Your task to perform on an android device: turn on showing notifications on the lock screen Image 0: 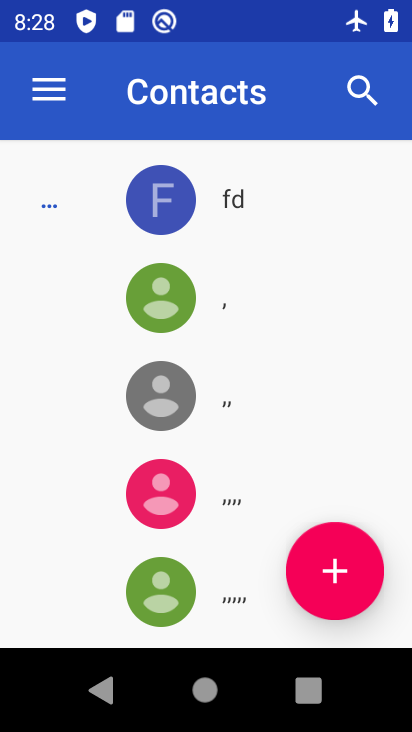
Step 0: press home button
Your task to perform on an android device: turn on showing notifications on the lock screen Image 1: 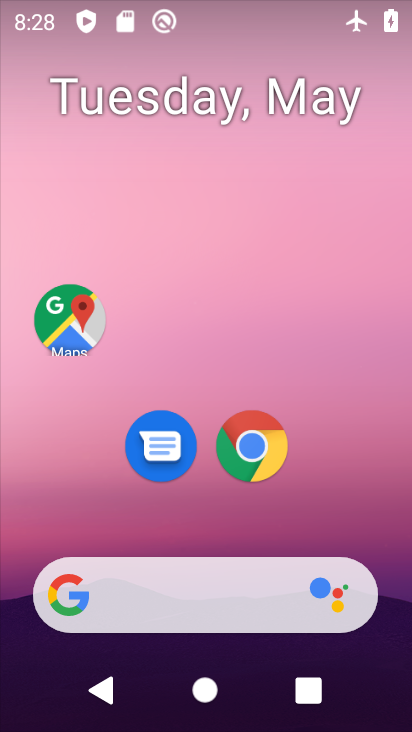
Step 1: drag from (399, 538) to (375, 187)
Your task to perform on an android device: turn on showing notifications on the lock screen Image 2: 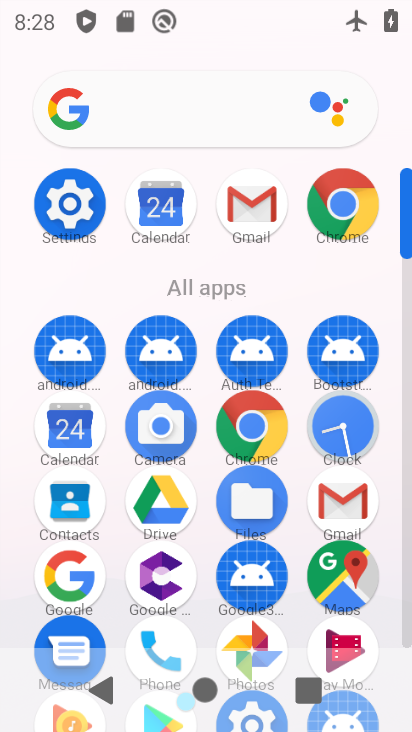
Step 2: click (83, 222)
Your task to perform on an android device: turn on showing notifications on the lock screen Image 3: 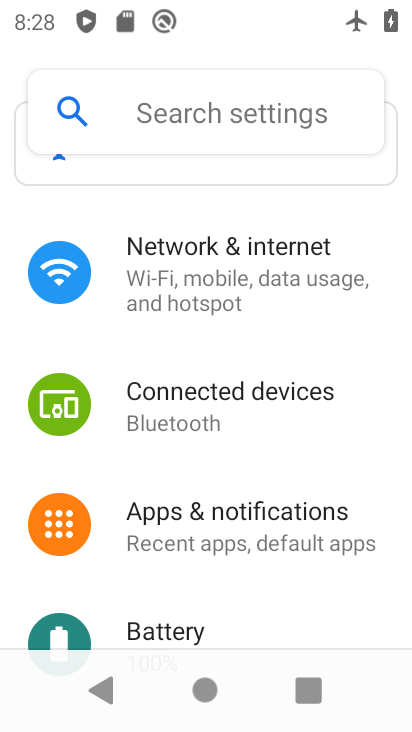
Step 3: drag from (364, 575) to (387, 448)
Your task to perform on an android device: turn on showing notifications on the lock screen Image 4: 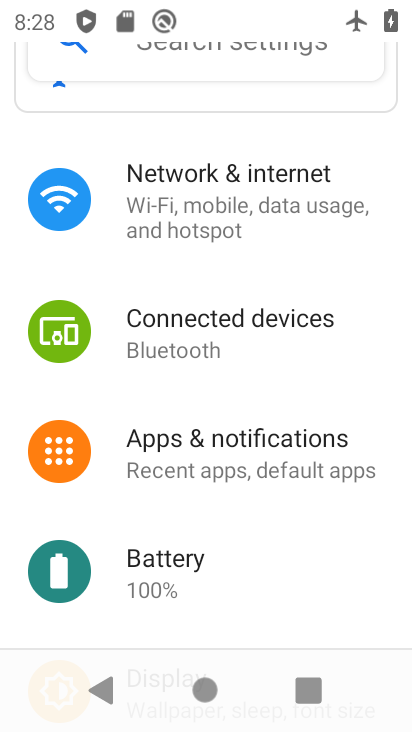
Step 4: drag from (382, 594) to (391, 465)
Your task to perform on an android device: turn on showing notifications on the lock screen Image 5: 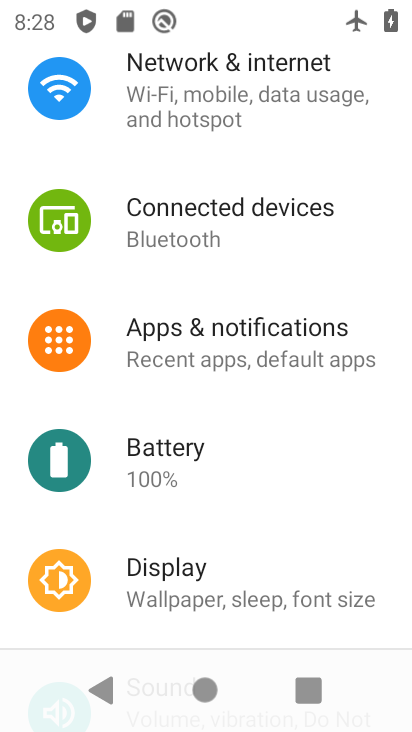
Step 5: drag from (376, 530) to (377, 397)
Your task to perform on an android device: turn on showing notifications on the lock screen Image 6: 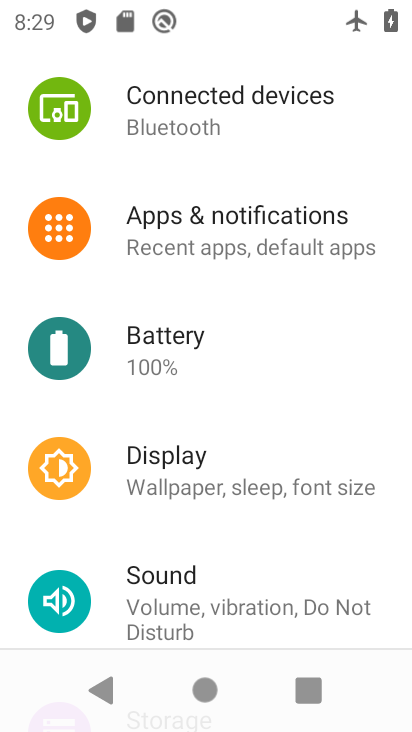
Step 6: drag from (359, 571) to (365, 430)
Your task to perform on an android device: turn on showing notifications on the lock screen Image 7: 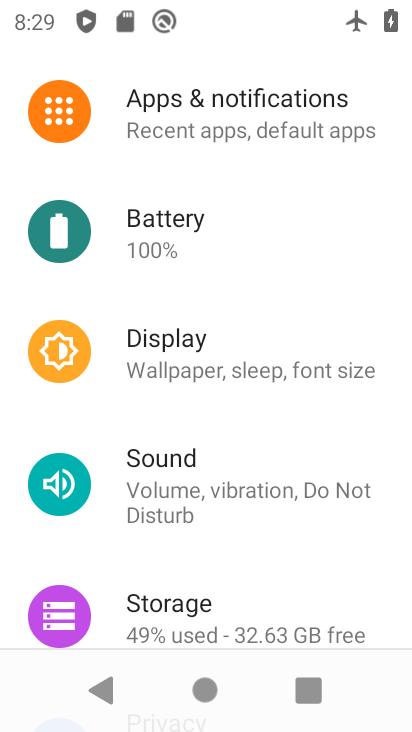
Step 7: drag from (360, 576) to (366, 466)
Your task to perform on an android device: turn on showing notifications on the lock screen Image 8: 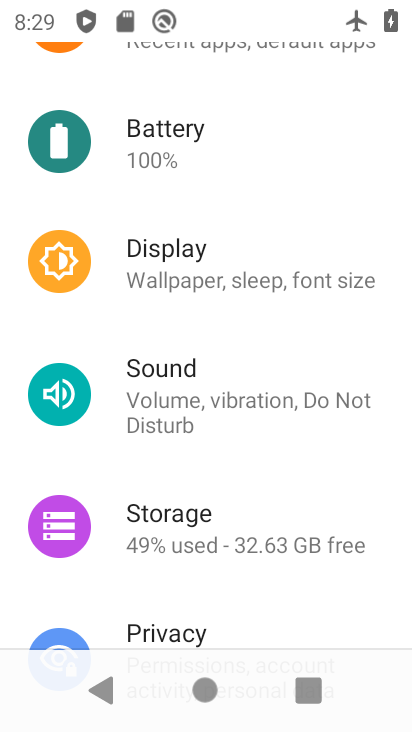
Step 8: drag from (366, 595) to (378, 497)
Your task to perform on an android device: turn on showing notifications on the lock screen Image 9: 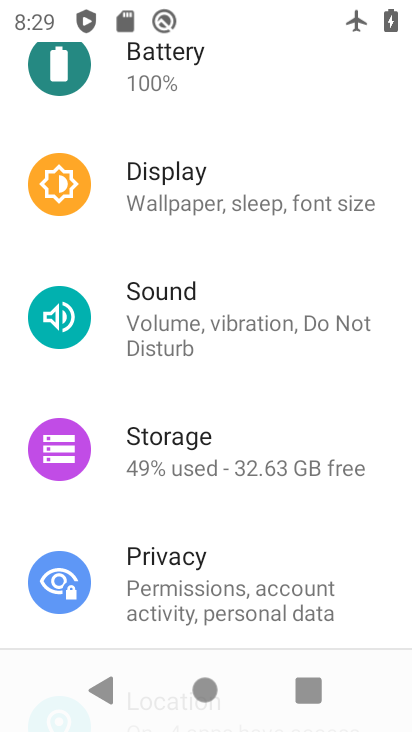
Step 9: drag from (372, 574) to (375, 478)
Your task to perform on an android device: turn on showing notifications on the lock screen Image 10: 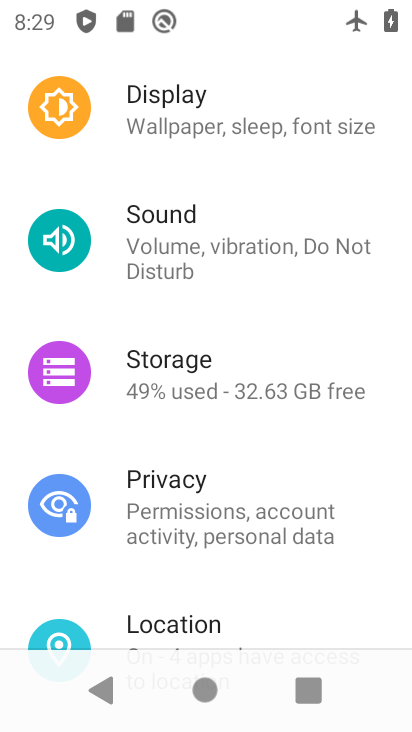
Step 10: drag from (385, 323) to (385, 437)
Your task to perform on an android device: turn on showing notifications on the lock screen Image 11: 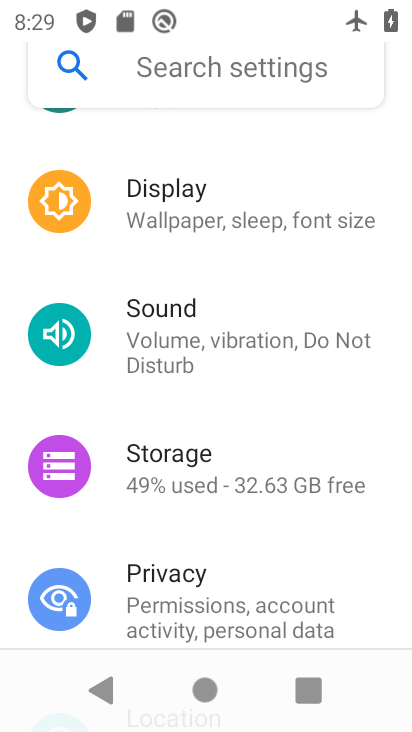
Step 11: drag from (384, 271) to (387, 375)
Your task to perform on an android device: turn on showing notifications on the lock screen Image 12: 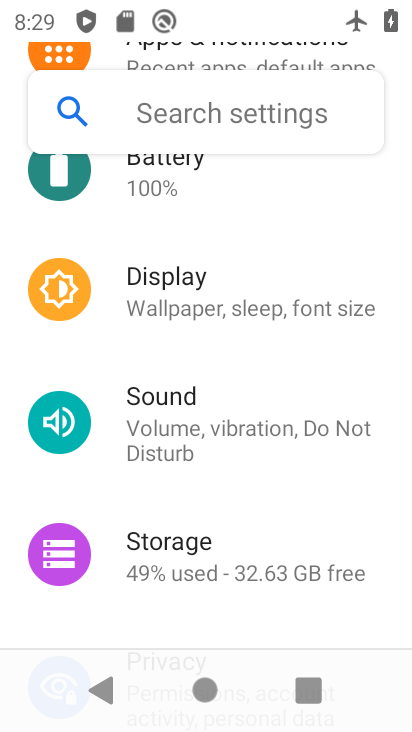
Step 12: drag from (373, 275) to (372, 367)
Your task to perform on an android device: turn on showing notifications on the lock screen Image 13: 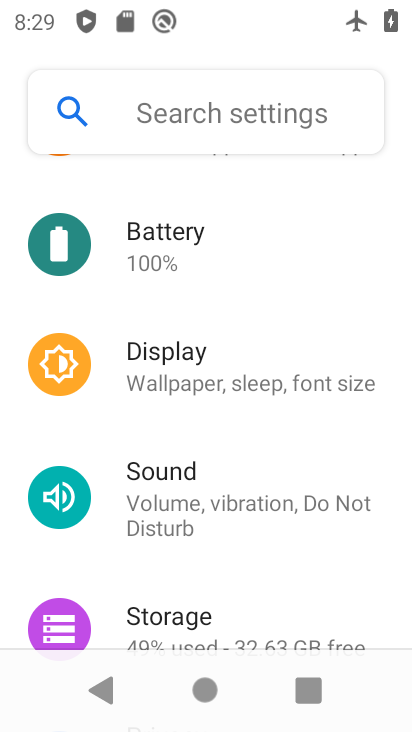
Step 13: drag from (381, 282) to (382, 371)
Your task to perform on an android device: turn on showing notifications on the lock screen Image 14: 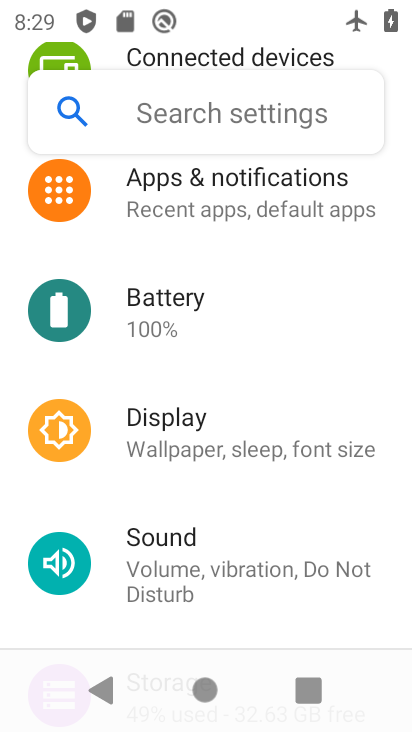
Step 14: drag from (380, 247) to (384, 367)
Your task to perform on an android device: turn on showing notifications on the lock screen Image 15: 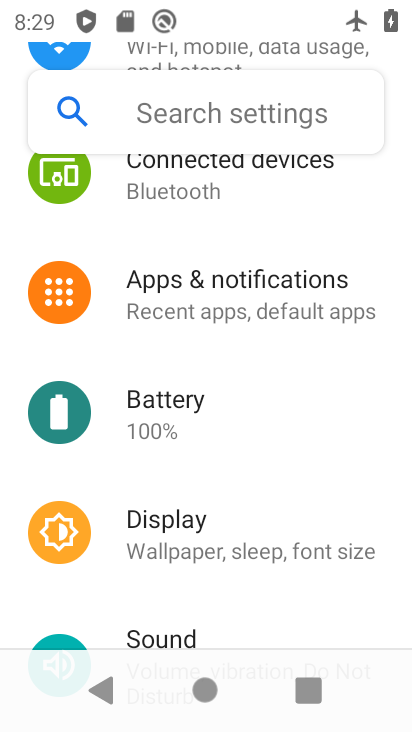
Step 15: drag from (387, 233) to (388, 351)
Your task to perform on an android device: turn on showing notifications on the lock screen Image 16: 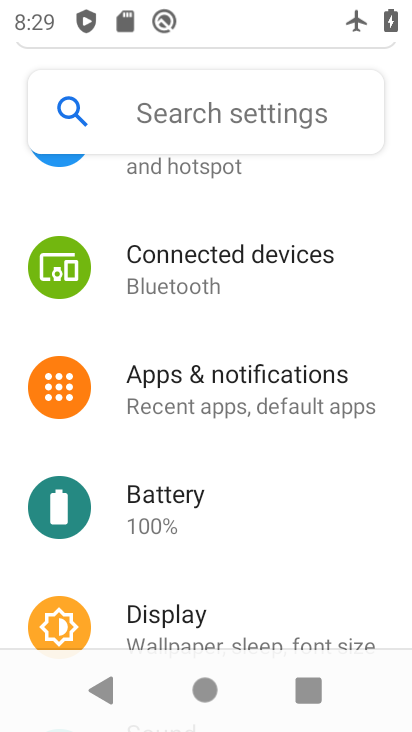
Step 16: click (275, 401)
Your task to perform on an android device: turn on showing notifications on the lock screen Image 17: 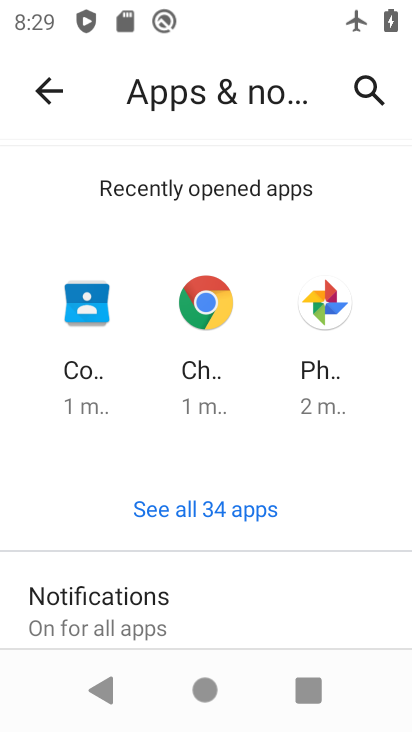
Step 17: drag from (276, 553) to (287, 455)
Your task to perform on an android device: turn on showing notifications on the lock screen Image 18: 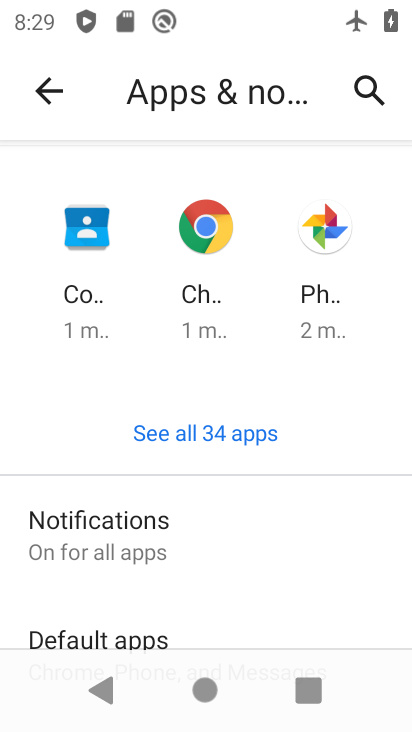
Step 18: drag from (289, 548) to (298, 433)
Your task to perform on an android device: turn on showing notifications on the lock screen Image 19: 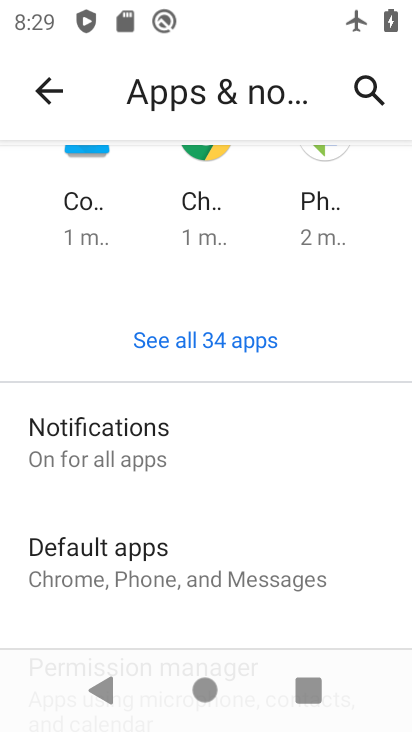
Step 19: click (141, 459)
Your task to perform on an android device: turn on showing notifications on the lock screen Image 20: 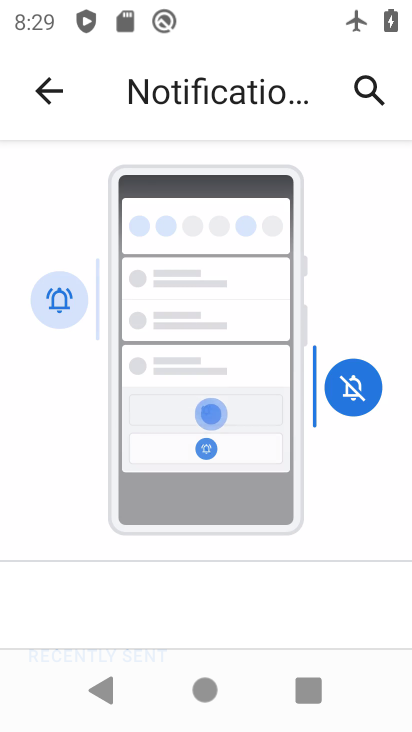
Step 20: drag from (338, 555) to (350, 426)
Your task to perform on an android device: turn on showing notifications on the lock screen Image 21: 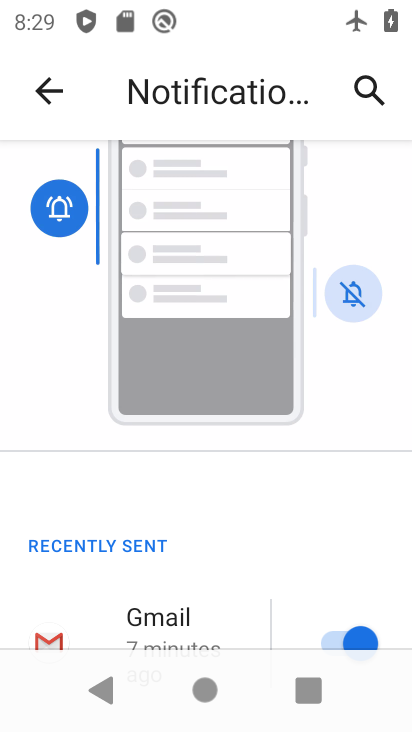
Step 21: drag from (302, 575) to (307, 385)
Your task to perform on an android device: turn on showing notifications on the lock screen Image 22: 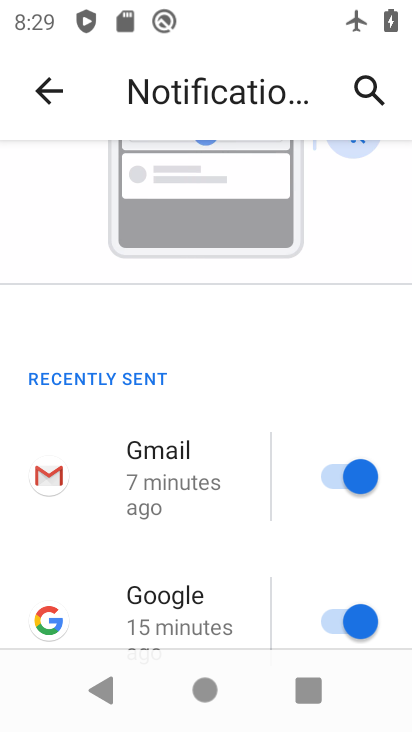
Step 22: drag from (288, 581) to (299, 425)
Your task to perform on an android device: turn on showing notifications on the lock screen Image 23: 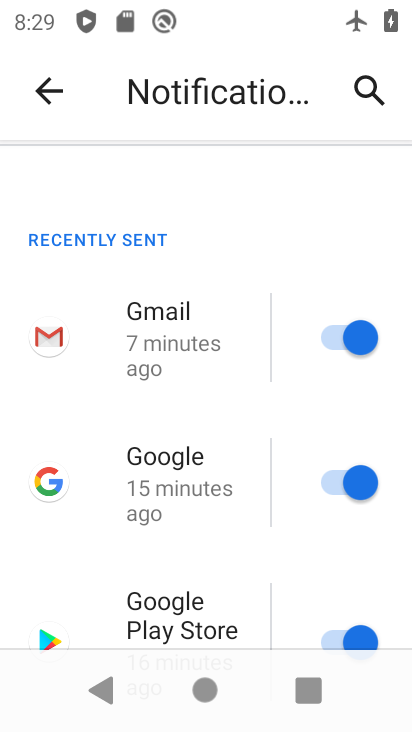
Step 23: drag from (291, 581) to (296, 421)
Your task to perform on an android device: turn on showing notifications on the lock screen Image 24: 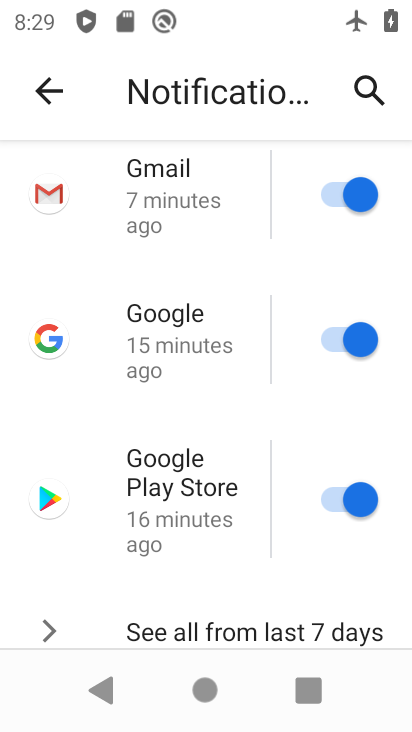
Step 24: drag from (285, 600) to (292, 440)
Your task to perform on an android device: turn on showing notifications on the lock screen Image 25: 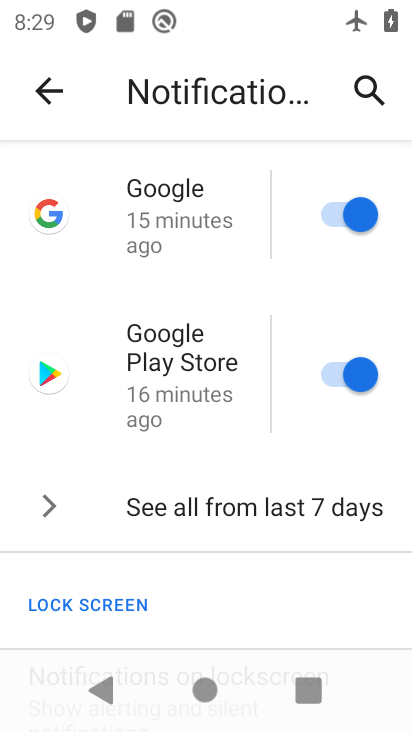
Step 25: drag from (273, 592) to (276, 430)
Your task to perform on an android device: turn on showing notifications on the lock screen Image 26: 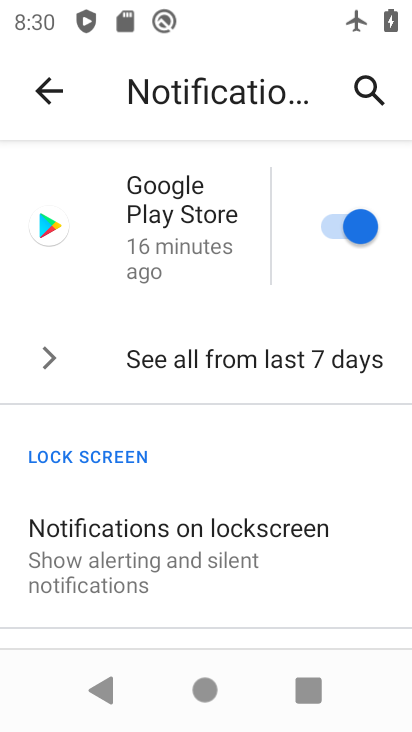
Step 26: click (231, 540)
Your task to perform on an android device: turn on showing notifications on the lock screen Image 27: 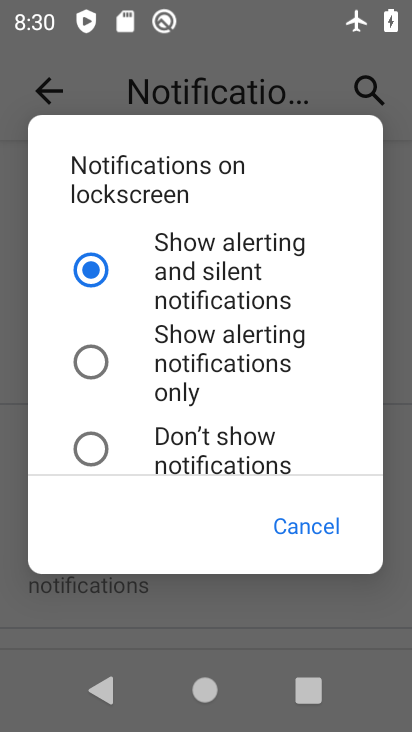
Step 27: task complete